Your task to perform on an android device: manage bookmarks in the chrome app Image 0: 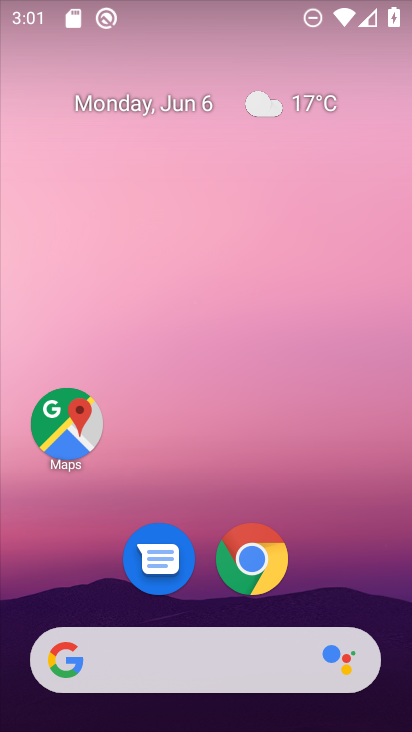
Step 0: drag from (350, 570) to (262, 87)
Your task to perform on an android device: manage bookmarks in the chrome app Image 1: 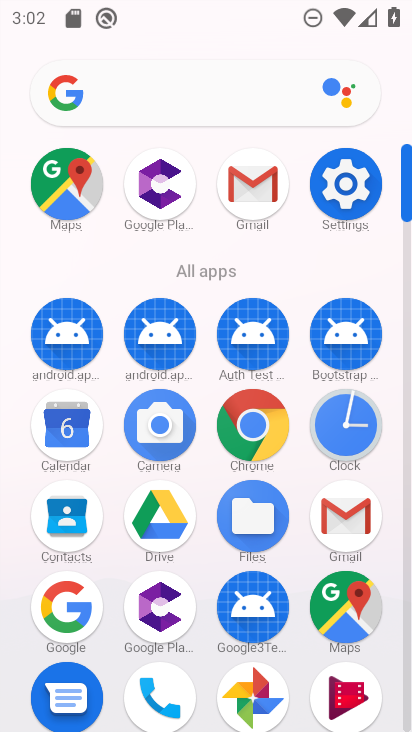
Step 1: click (267, 440)
Your task to perform on an android device: manage bookmarks in the chrome app Image 2: 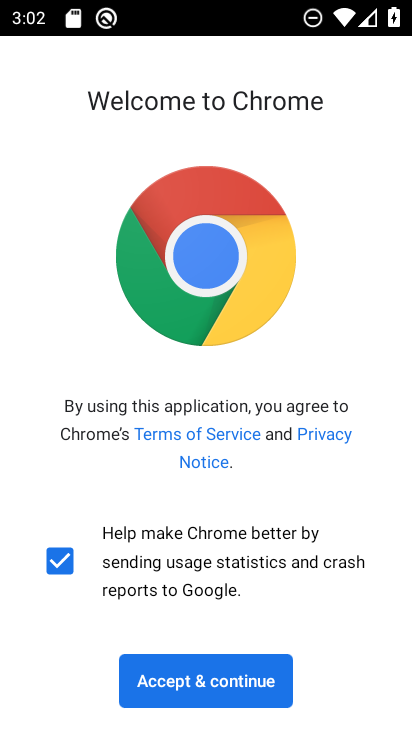
Step 2: click (244, 659)
Your task to perform on an android device: manage bookmarks in the chrome app Image 3: 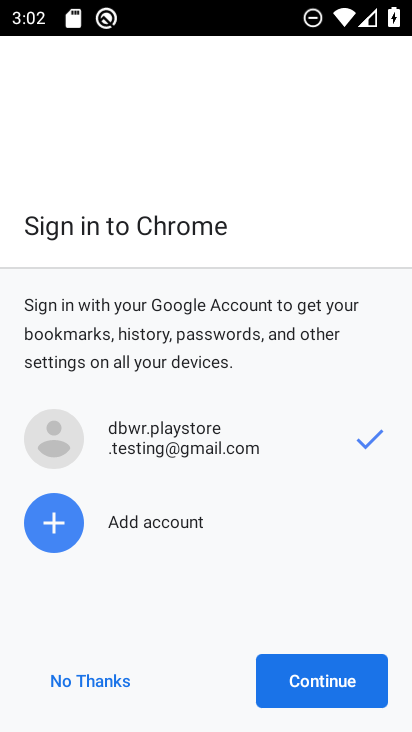
Step 3: click (325, 693)
Your task to perform on an android device: manage bookmarks in the chrome app Image 4: 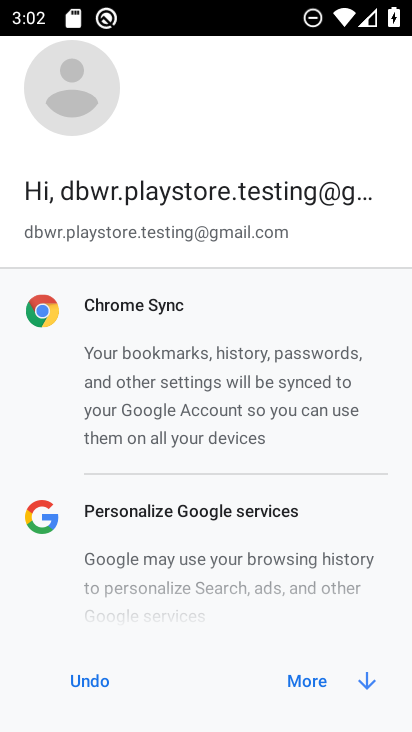
Step 4: click (333, 689)
Your task to perform on an android device: manage bookmarks in the chrome app Image 5: 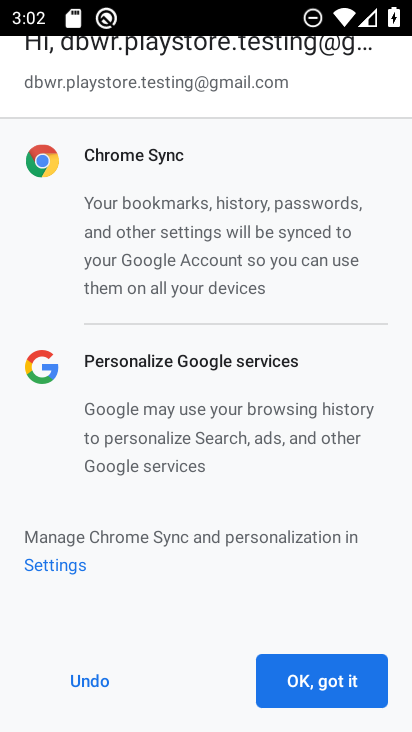
Step 5: click (333, 689)
Your task to perform on an android device: manage bookmarks in the chrome app Image 6: 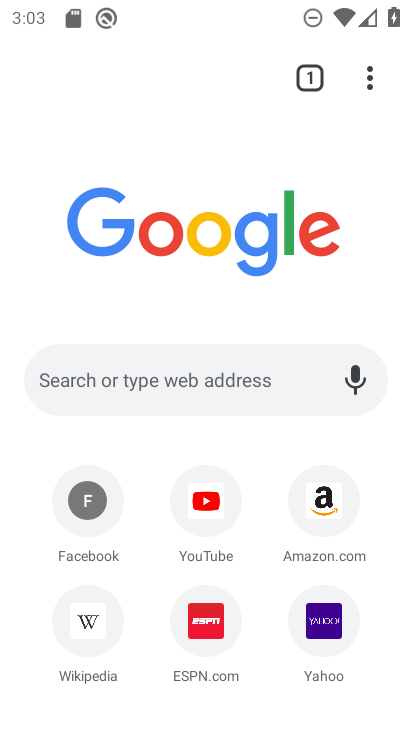
Step 6: click (381, 96)
Your task to perform on an android device: manage bookmarks in the chrome app Image 7: 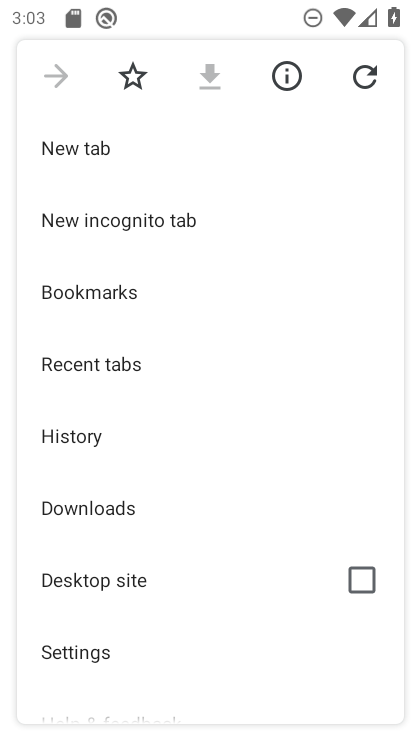
Step 7: drag from (170, 675) to (146, 410)
Your task to perform on an android device: manage bookmarks in the chrome app Image 8: 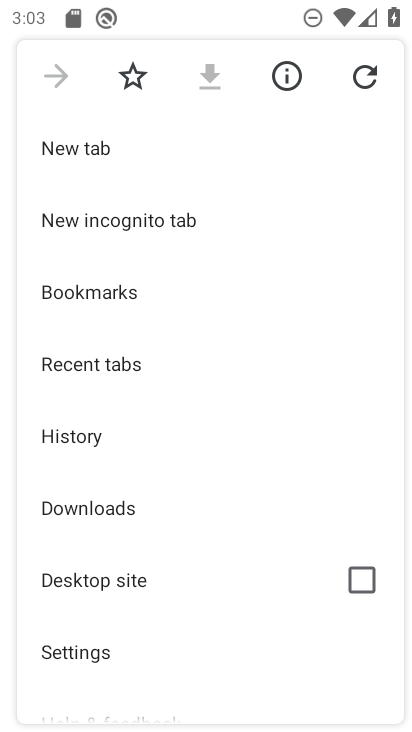
Step 8: click (113, 297)
Your task to perform on an android device: manage bookmarks in the chrome app Image 9: 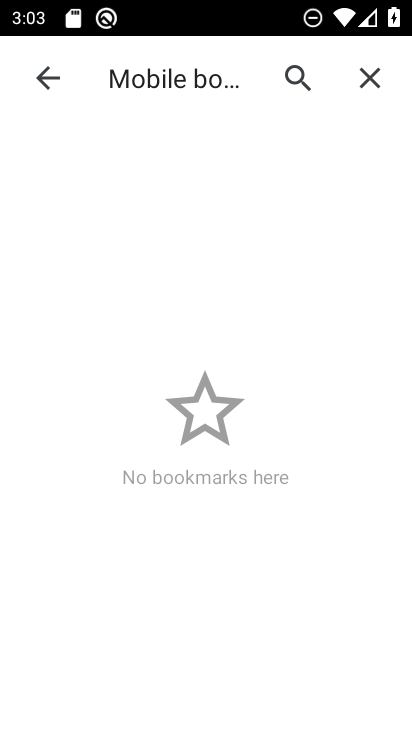
Step 9: task complete